Your task to perform on an android device: remove spam from my inbox in the gmail app Image 0: 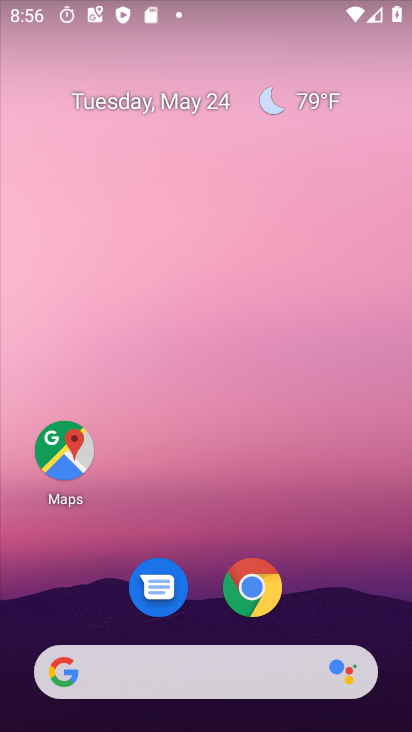
Step 0: drag from (326, 598) to (219, 200)
Your task to perform on an android device: remove spam from my inbox in the gmail app Image 1: 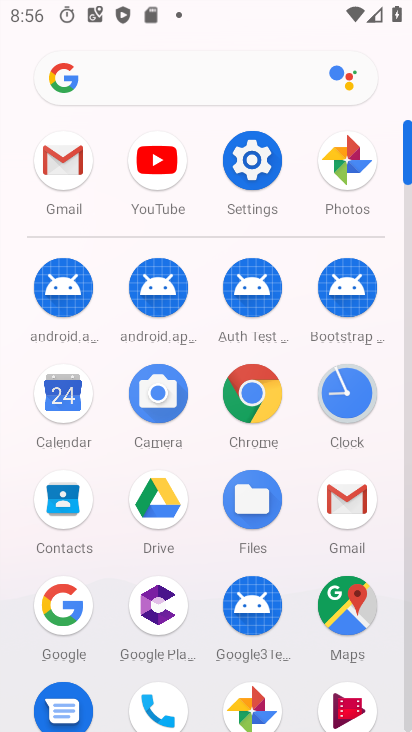
Step 1: click (63, 161)
Your task to perform on an android device: remove spam from my inbox in the gmail app Image 2: 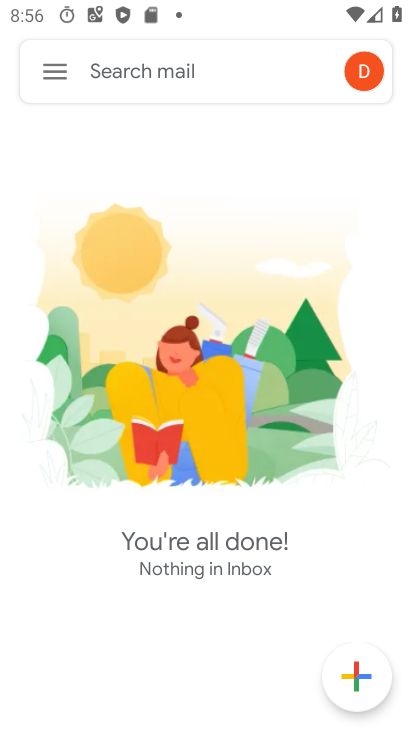
Step 2: click (56, 67)
Your task to perform on an android device: remove spam from my inbox in the gmail app Image 3: 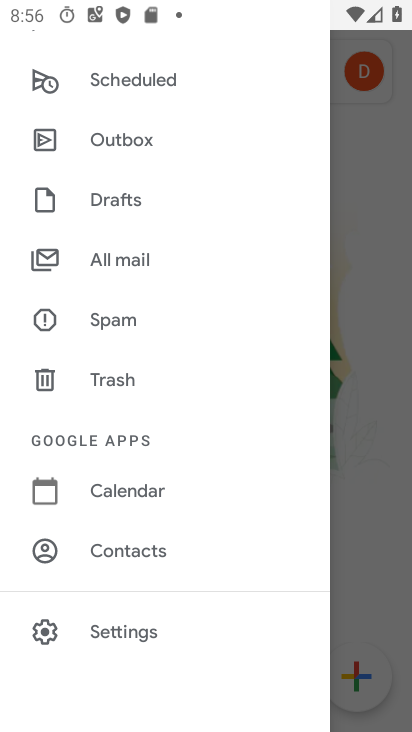
Step 3: click (127, 321)
Your task to perform on an android device: remove spam from my inbox in the gmail app Image 4: 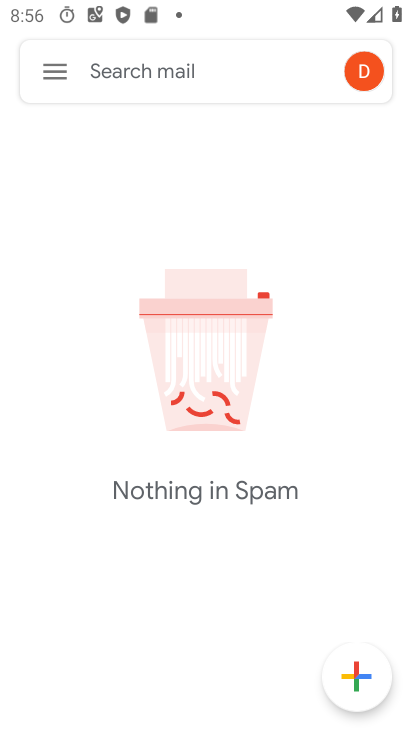
Step 4: task complete